Your task to perform on an android device: Show me productivity apps on the Play Store Image 0: 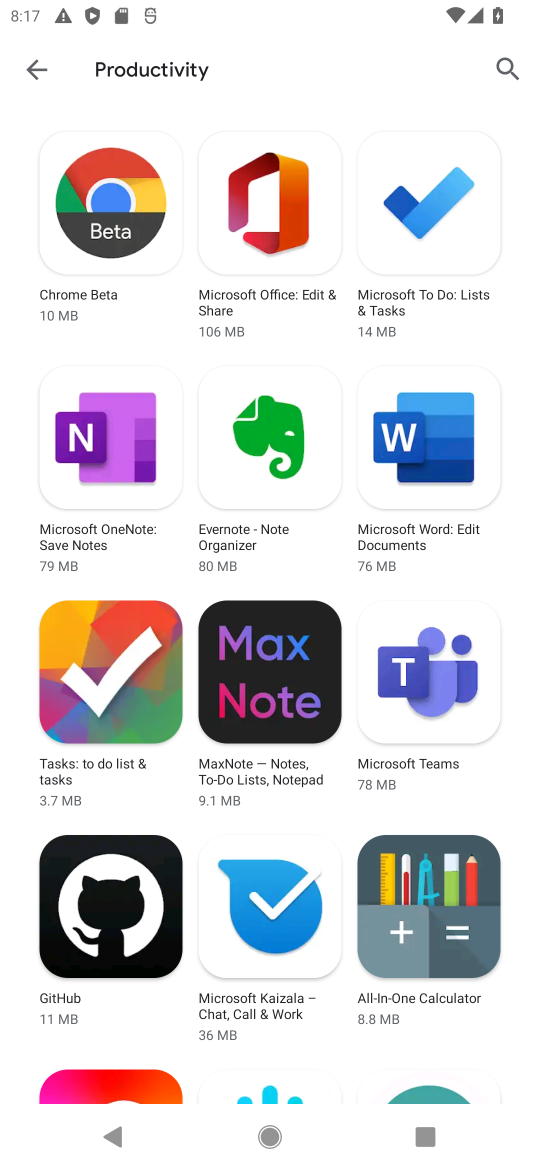
Step 0: task complete